Your task to perform on an android device: install app "Microsoft Authenticator" Image 0: 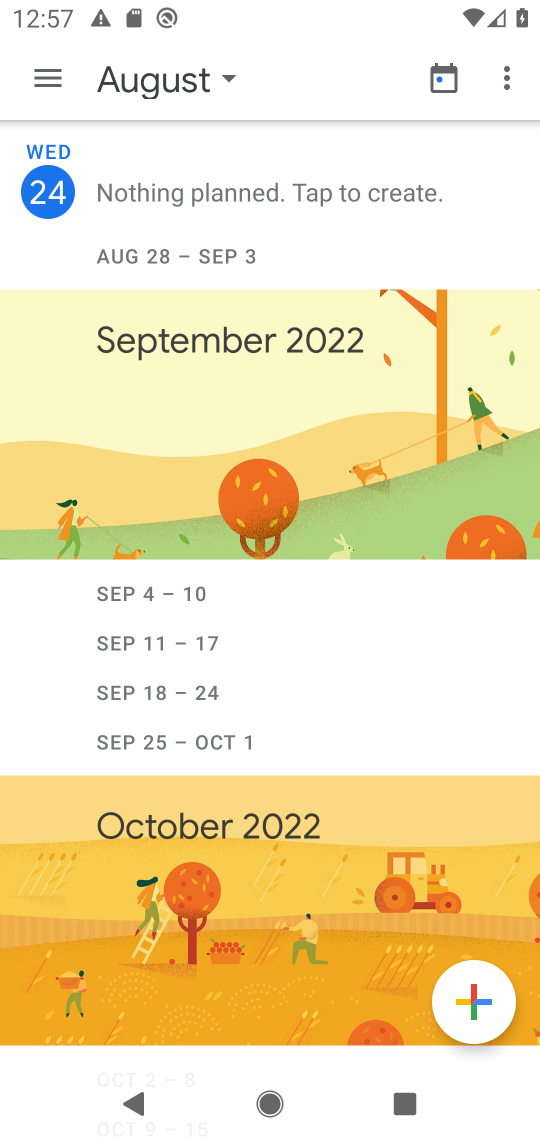
Step 0: press back button
Your task to perform on an android device: install app "Microsoft Authenticator" Image 1: 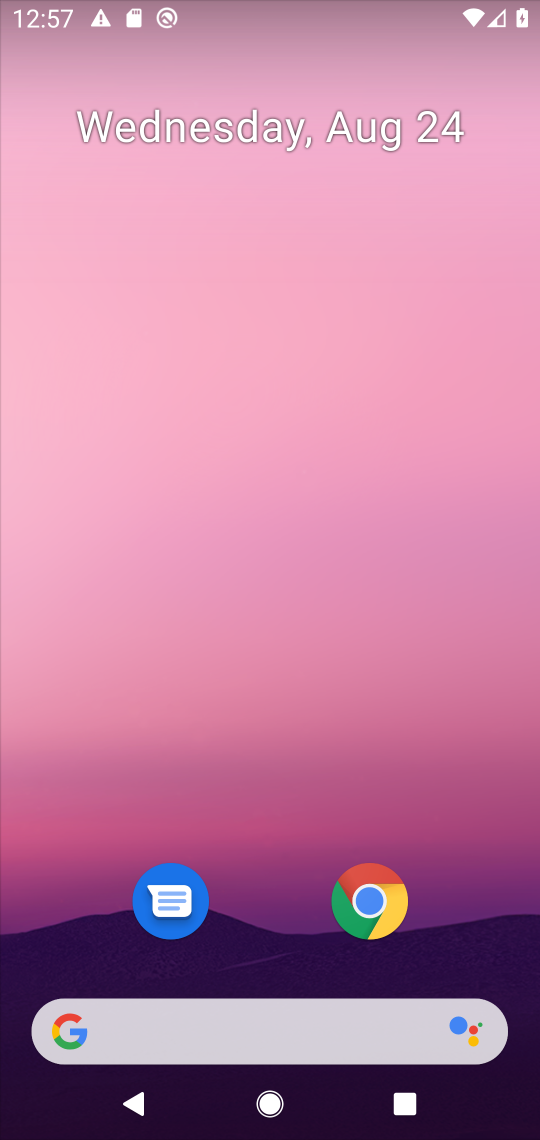
Step 1: drag from (249, 972) to (407, 11)
Your task to perform on an android device: install app "Microsoft Authenticator" Image 2: 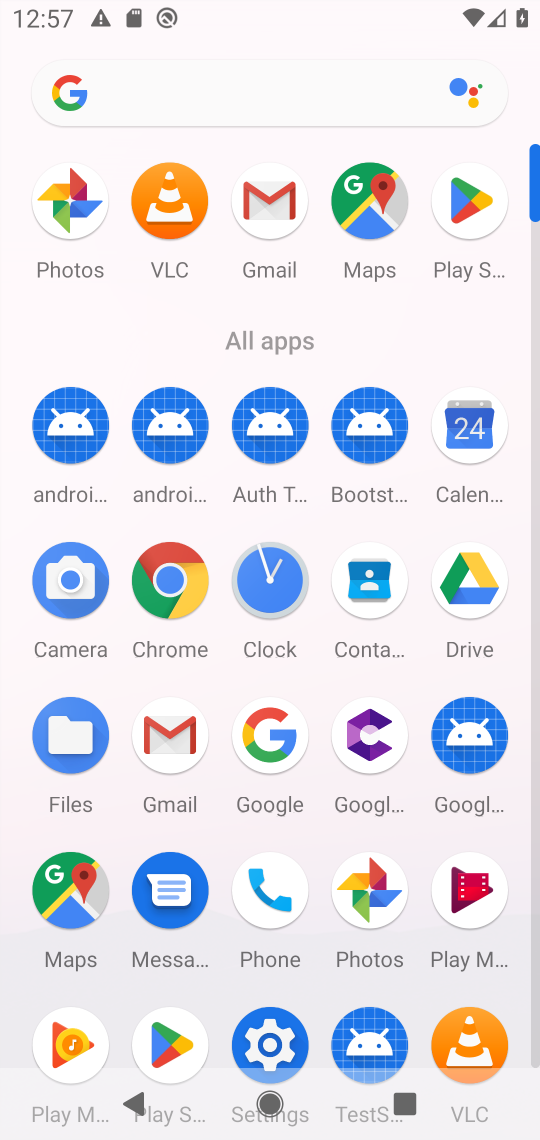
Step 2: click (496, 190)
Your task to perform on an android device: install app "Microsoft Authenticator" Image 3: 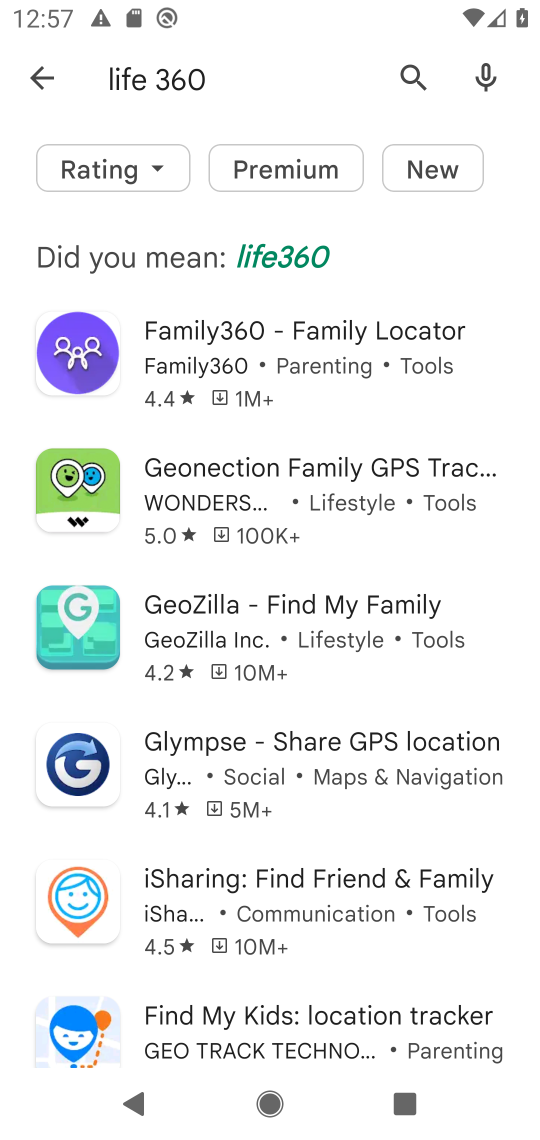
Step 3: click (425, 73)
Your task to perform on an android device: install app "Microsoft Authenticator" Image 4: 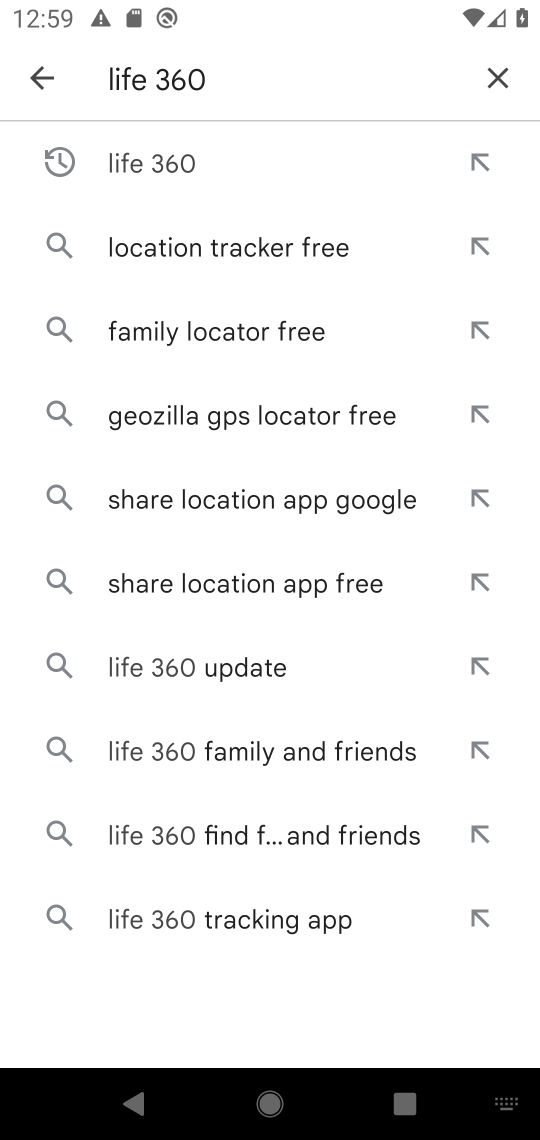
Step 4: click (489, 80)
Your task to perform on an android device: install app "Microsoft Authenticator" Image 5: 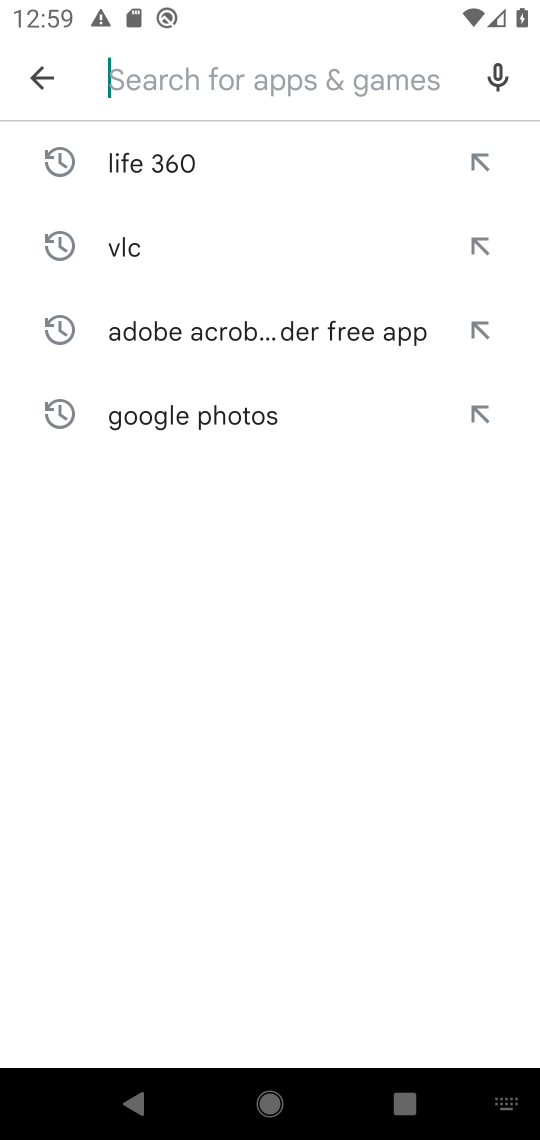
Step 5: type "Microsoft Authenticato"
Your task to perform on an android device: install app "Microsoft Authenticator" Image 6: 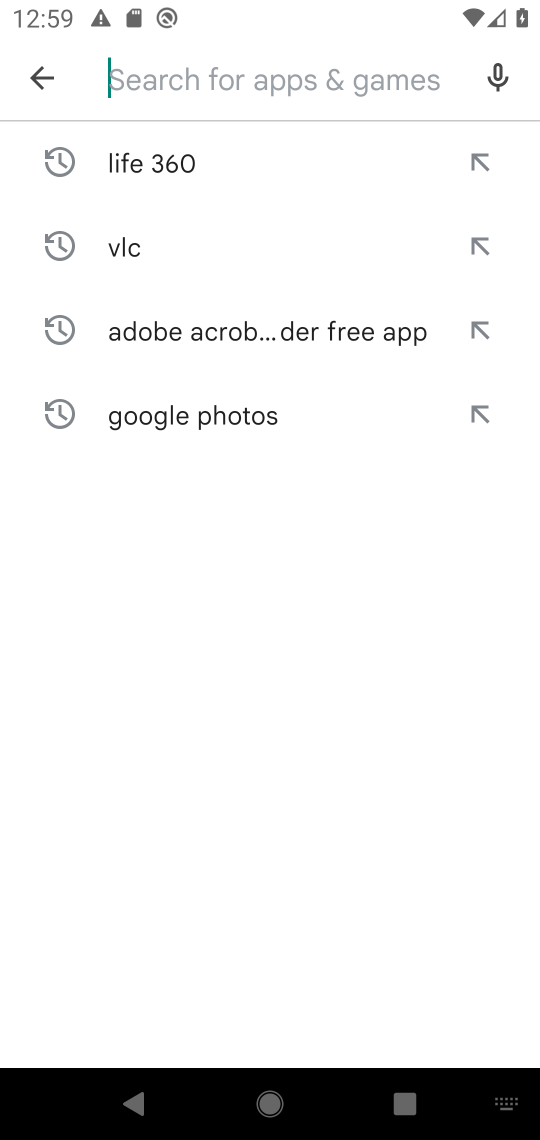
Step 6: click (245, 712)
Your task to perform on an android device: install app "Microsoft Authenticator" Image 7: 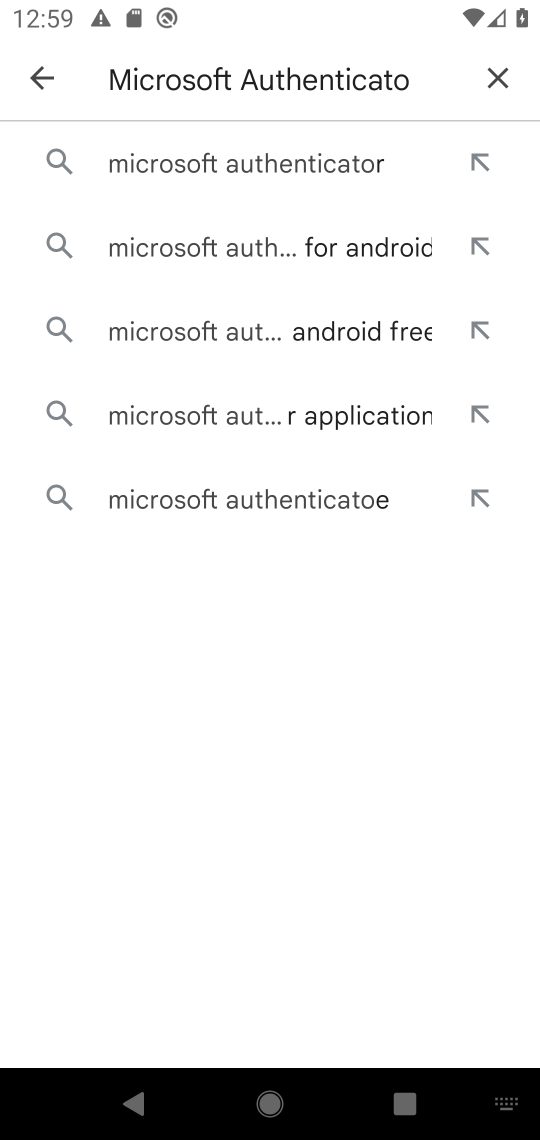
Step 7: click (197, 167)
Your task to perform on an android device: install app "Microsoft Authenticator" Image 8: 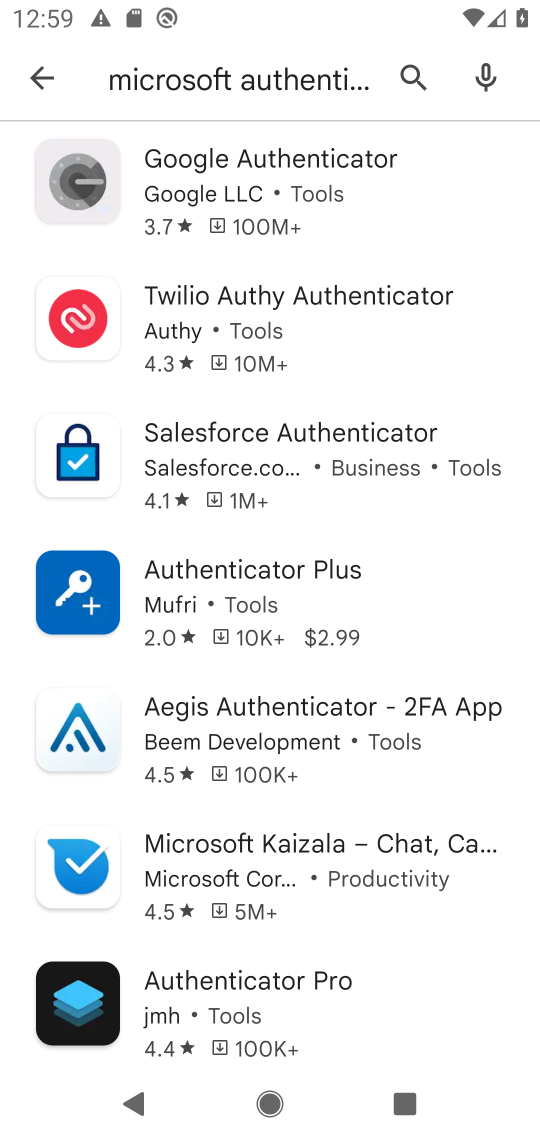
Step 8: task complete